Your task to perform on an android device: Open Google Image 0: 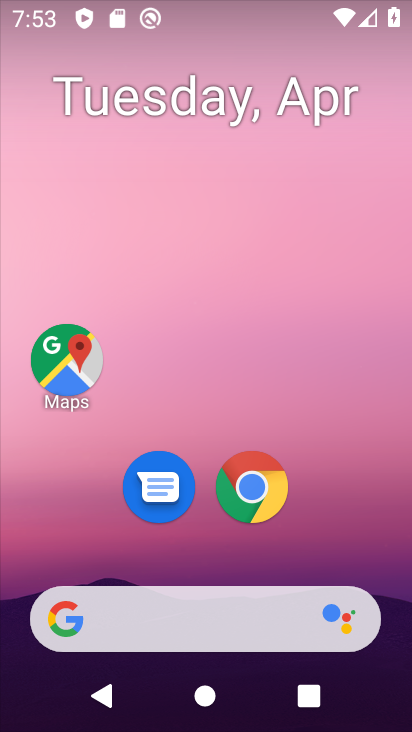
Step 0: drag from (217, 584) to (245, 257)
Your task to perform on an android device: Open Google Image 1: 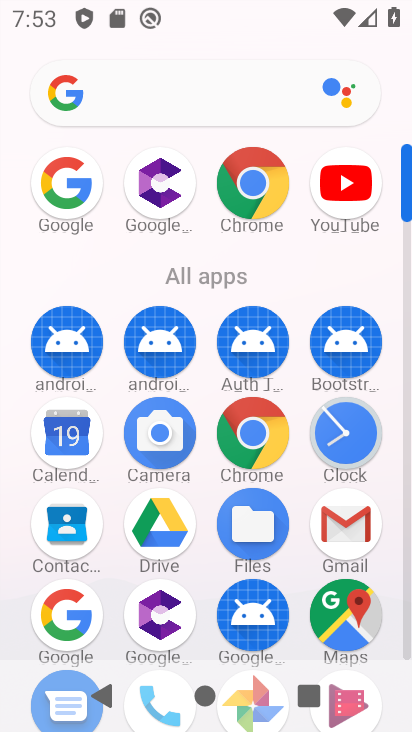
Step 1: click (63, 185)
Your task to perform on an android device: Open Google Image 2: 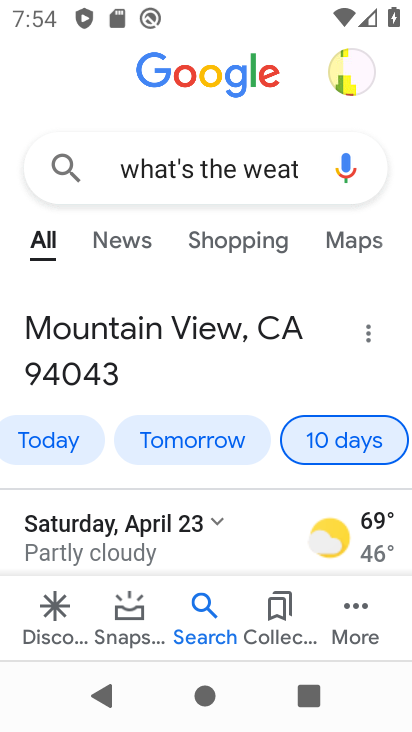
Step 2: task complete